Your task to perform on an android device: Find coffee shops on Maps Image 0: 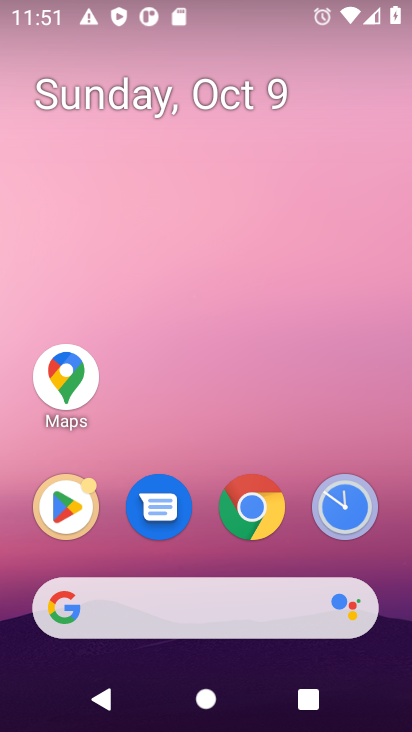
Step 0: click (239, 602)
Your task to perform on an android device: Find coffee shops on Maps Image 1: 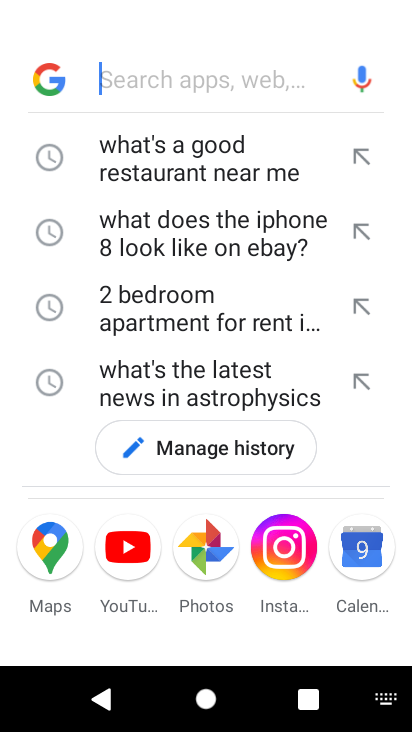
Step 1: press home button
Your task to perform on an android device: Find coffee shops on Maps Image 2: 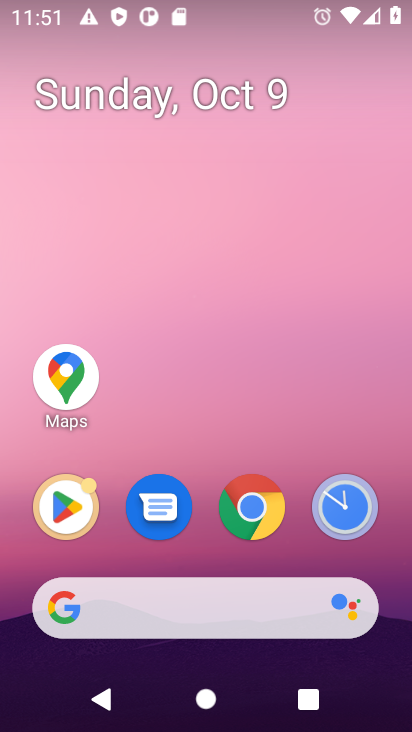
Step 2: drag from (391, 441) to (401, 38)
Your task to perform on an android device: Find coffee shops on Maps Image 3: 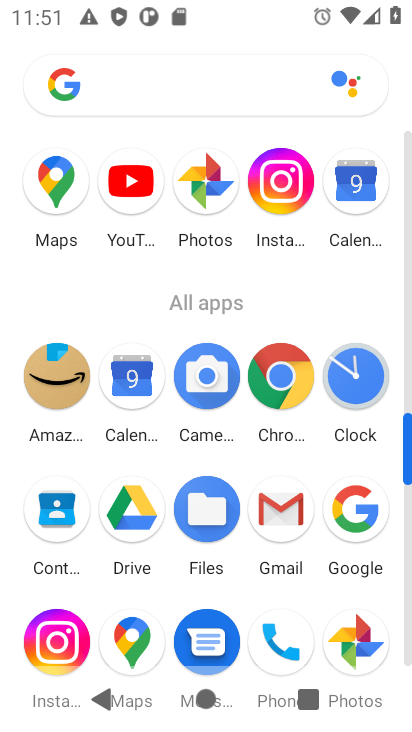
Step 3: click (65, 210)
Your task to perform on an android device: Find coffee shops on Maps Image 4: 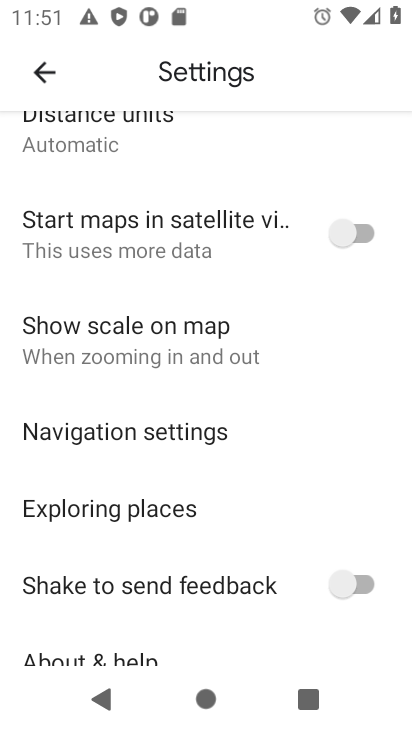
Step 4: press back button
Your task to perform on an android device: Find coffee shops on Maps Image 5: 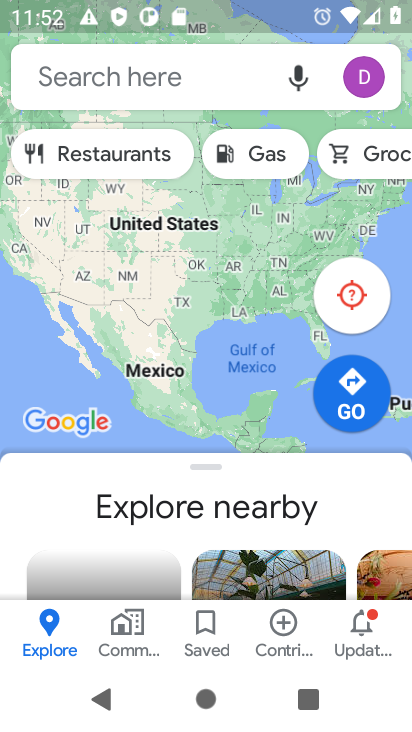
Step 5: click (196, 67)
Your task to perform on an android device: Find coffee shops on Maps Image 6: 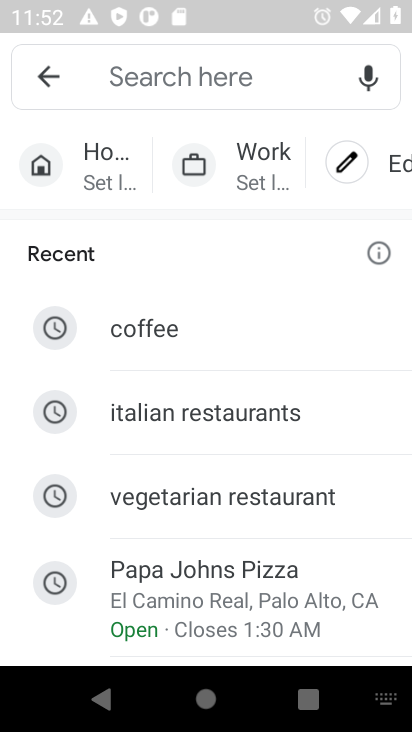
Step 6: type "coffee shops"
Your task to perform on an android device: Find coffee shops on Maps Image 7: 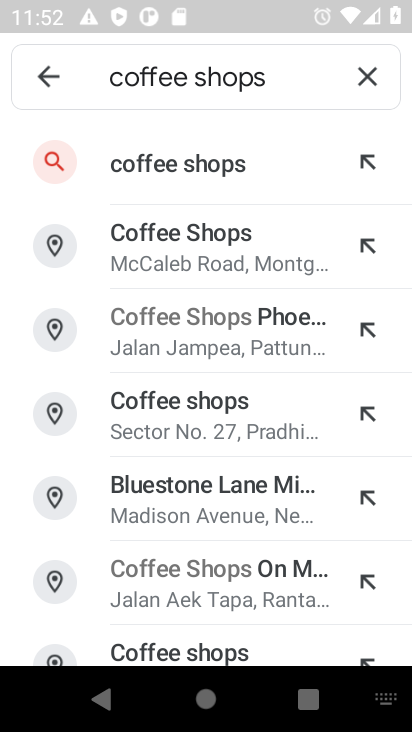
Step 7: click (213, 175)
Your task to perform on an android device: Find coffee shops on Maps Image 8: 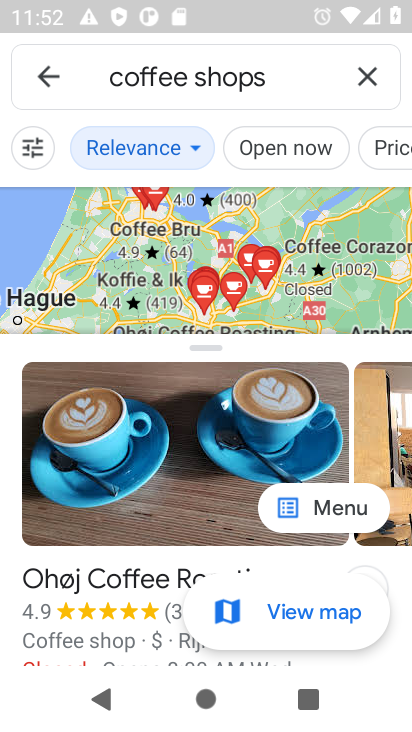
Step 8: task complete